Your task to perform on an android device: check android version Image 0: 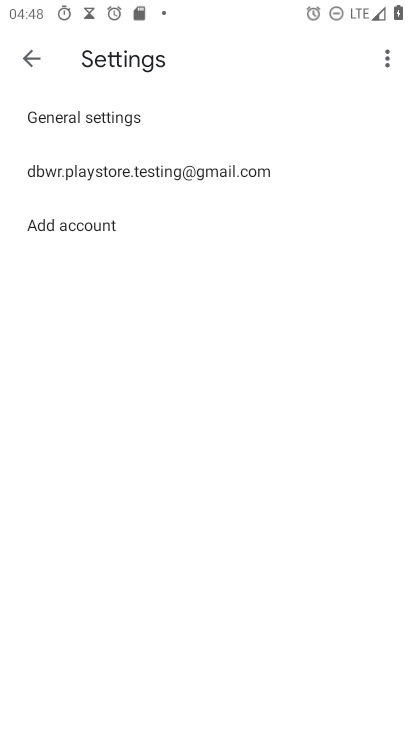
Step 0: press home button
Your task to perform on an android device: check android version Image 1: 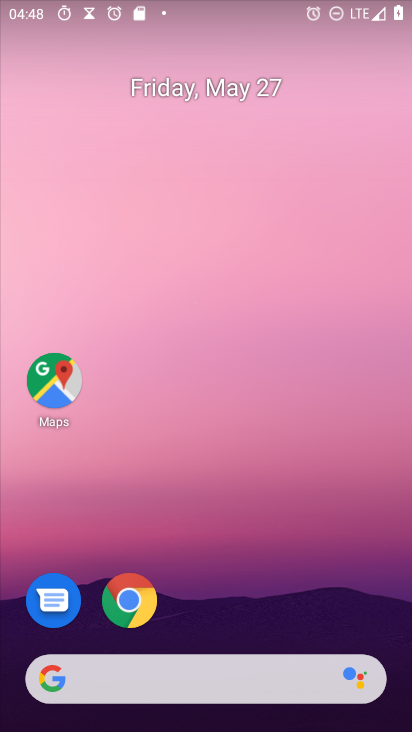
Step 1: drag from (213, 721) to (208, 142)
Your task to perform on an android device: check android version Image 2: 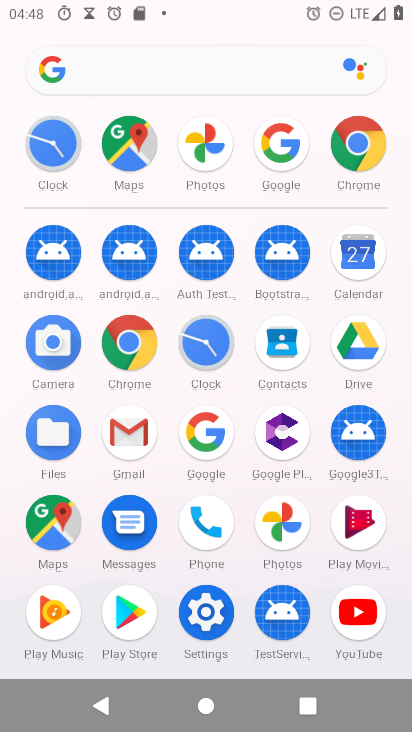
Step 2: click (204, 612)
Your task to perform on an android device: check android version Image 3: 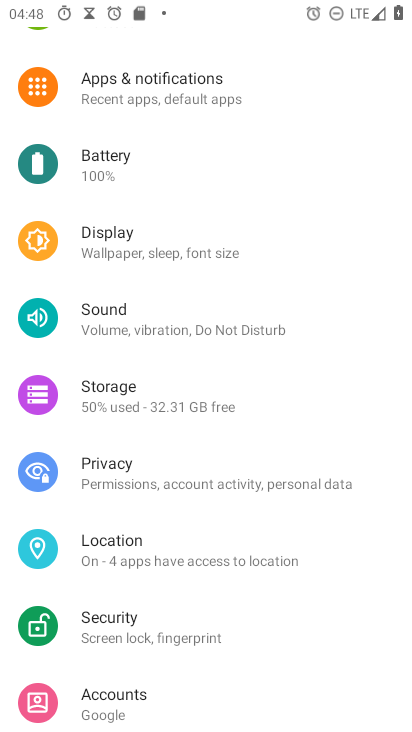
Step 3: drag from (201, 673) to (217, 186)
Your task to perform on an android device: check android version Image 4: 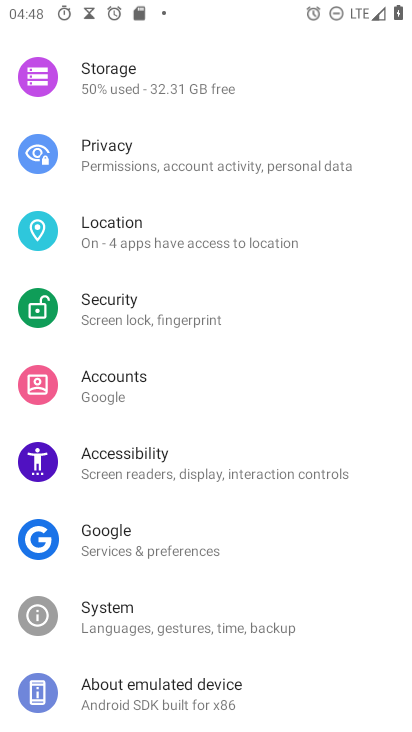
Step 4: click (134, 697)
Your task to perform on an android device: check android version Image 5: 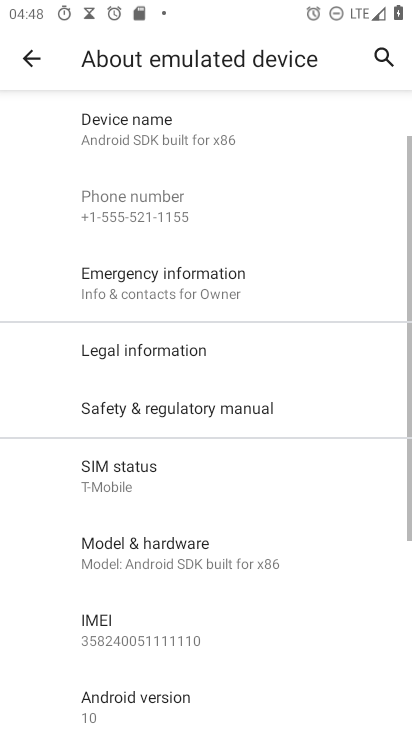
Step 5: click (140, 699)
Your task to perform on an android device: check android version Image 6: 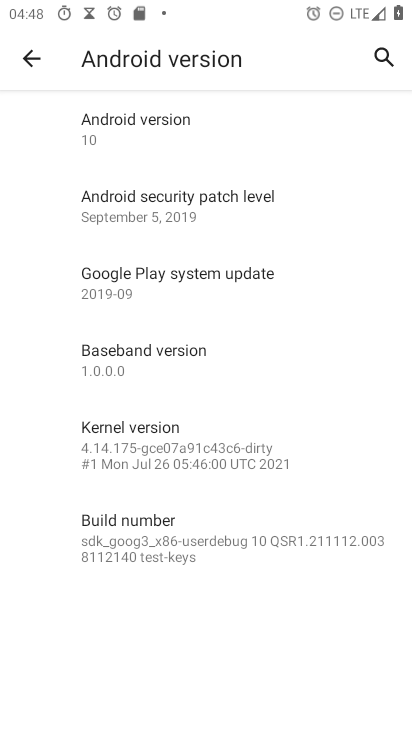
Step 6: task complete